Your task to perform on an android device: change the upload size in google photos Image 0: 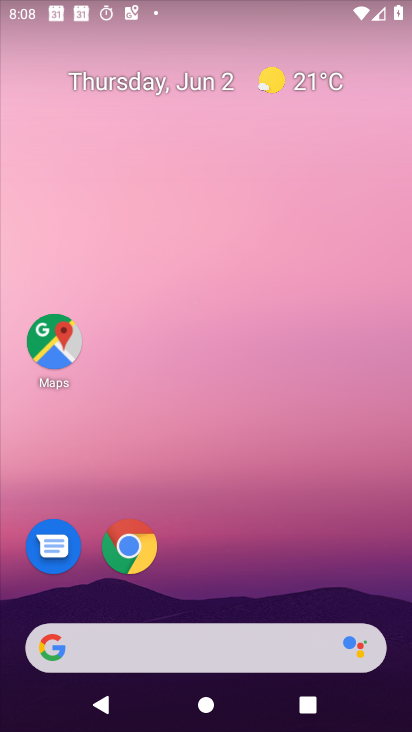
Step 0: click (361, 260)
Your task to perform on an android device: change the upload size in google photos Image 1: 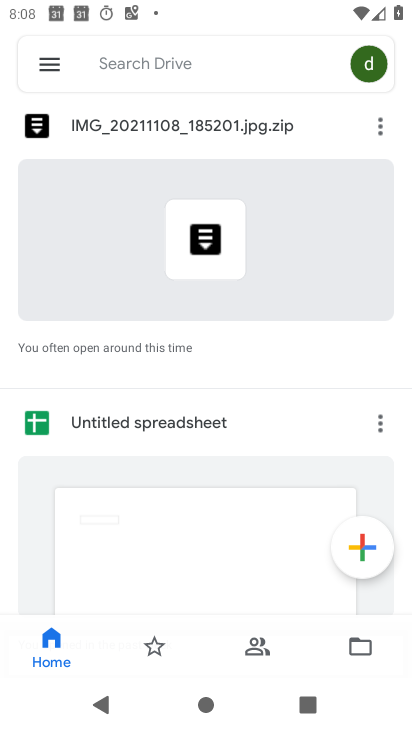
Step 1: click (361, 68)
Your task to perform on an android device: change the upload size in google photos Image 2: 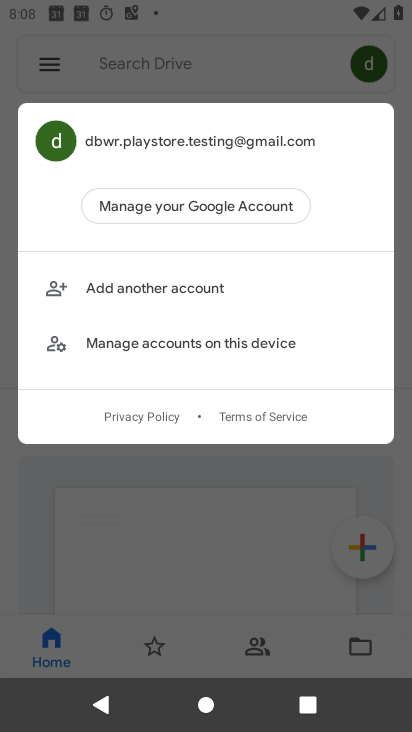
Step 2: press home button
Your task to perform on an android device: change the upload size in google photos Image 3: 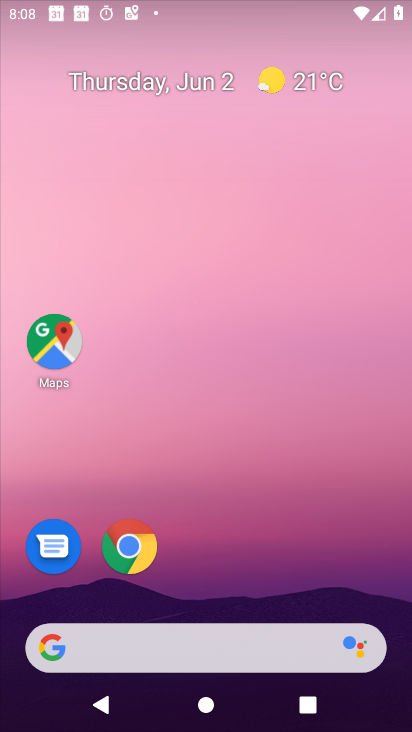
Step 3: drag from (298, 591) to (330, 195)
Your task to perform on an android device: change the upload size in google photos Image 4: 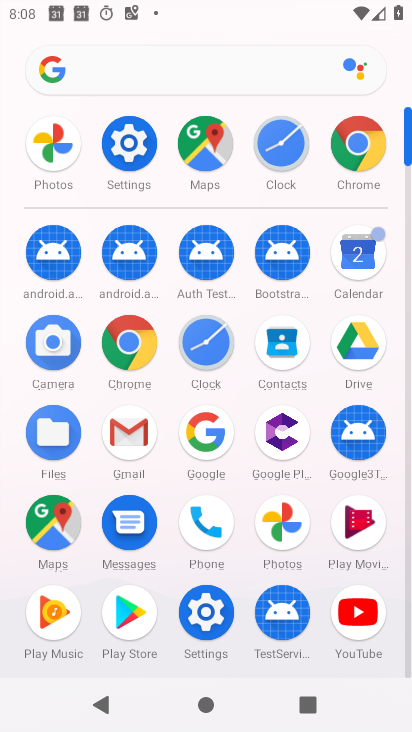
Step 4: click (283, 521)
Your task to perform on an android device: change the upload size in google photos Image 5: 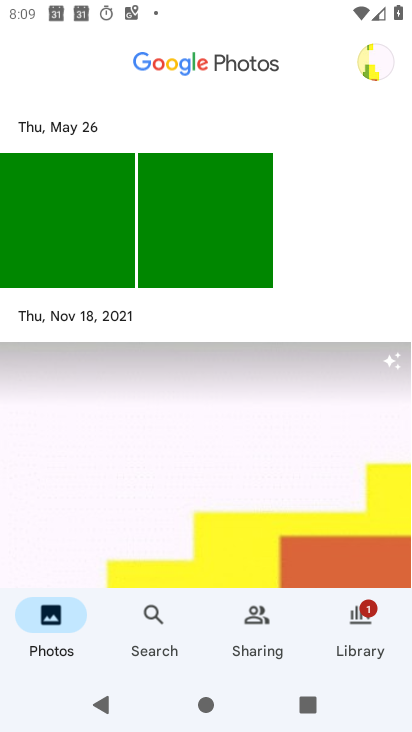
Step 5: click (362, 70)
Your task to perform on an android device: change the upload size in google photos Image 6: 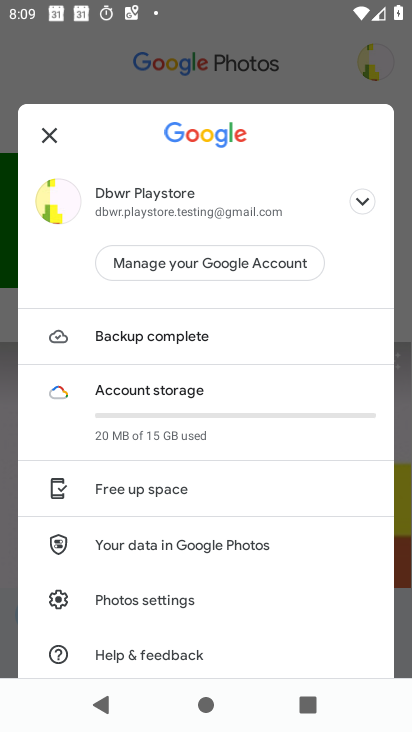
Step 6: click (215, 603)
Your task to perform on an android device: change the upload size in google photos Image 7: 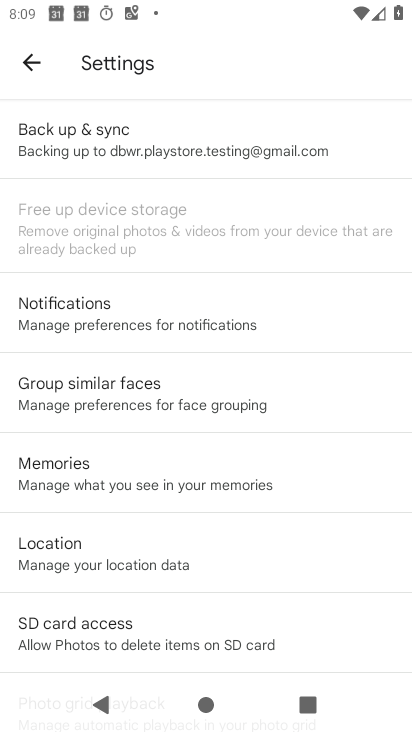
Step 7: click (202, 140)
Your task to perform on an android device: change the upload size in google photos Image 8: 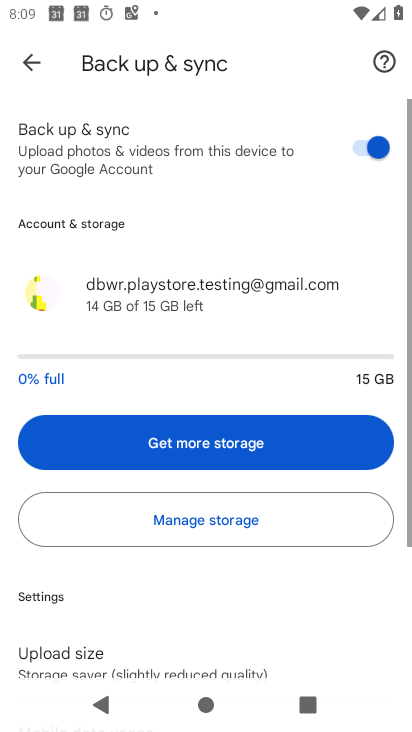
Step 8: click (223, 656)
Your task to perform on an android device: change the upload size in google photos Image 9: 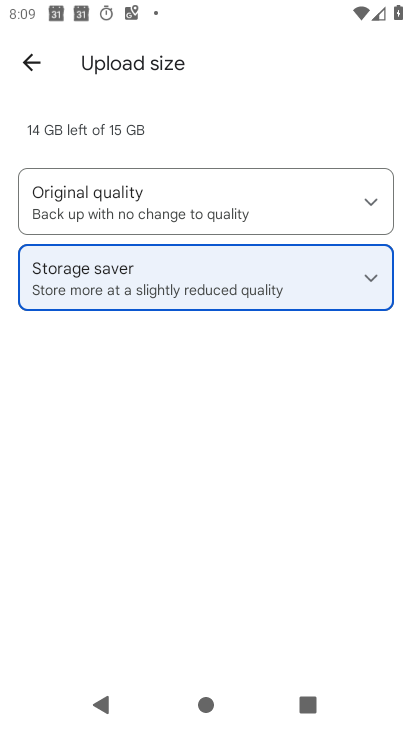
Step 9: click (264, 199)
Your task to perform on an android device: change the upload size in google photos Image 10: 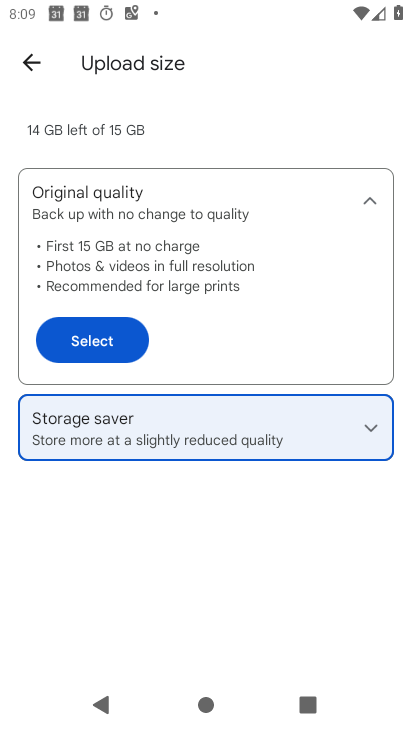
Step 10: click (121, 337)
Your task to perform on an android device: change the upload size in google photos Image 11: 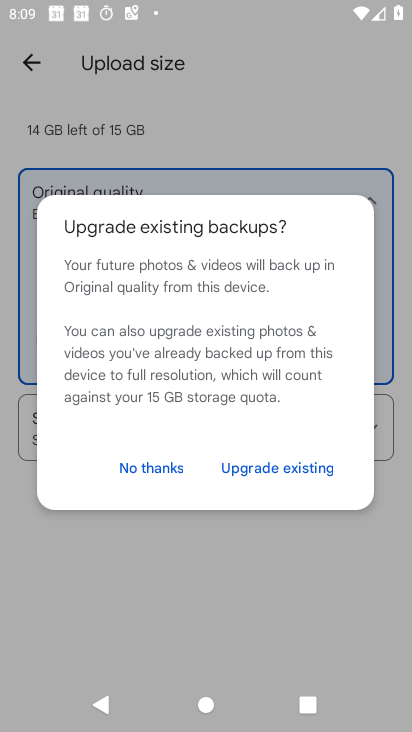
Step 11: click (153, 458)
Your task to perform on an android device: change the upload size in google photos Image 12: 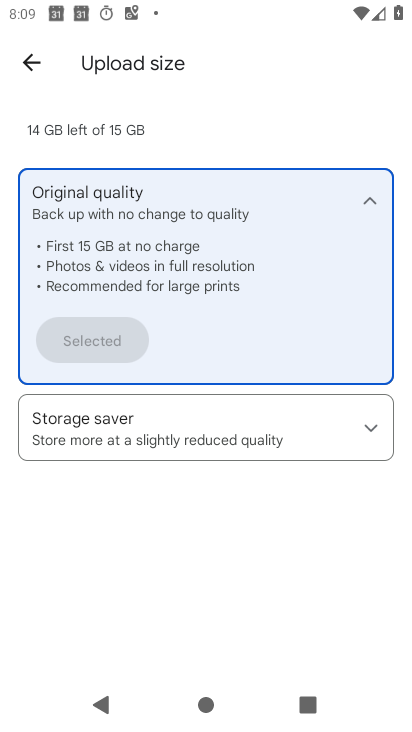
Step 12: task complete